Your task to perform on an android device: Search for vegetarian restaurants on Maps Image 0: 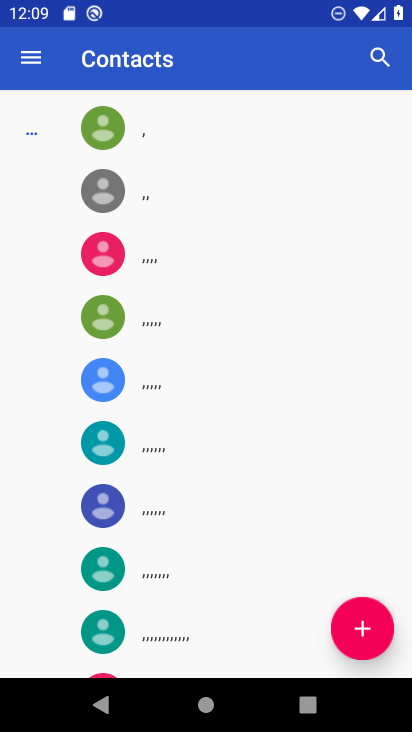
Step 0: press home button
Your task to perform on an android device: Search for vegetarian restaurants on Maps Image 1: 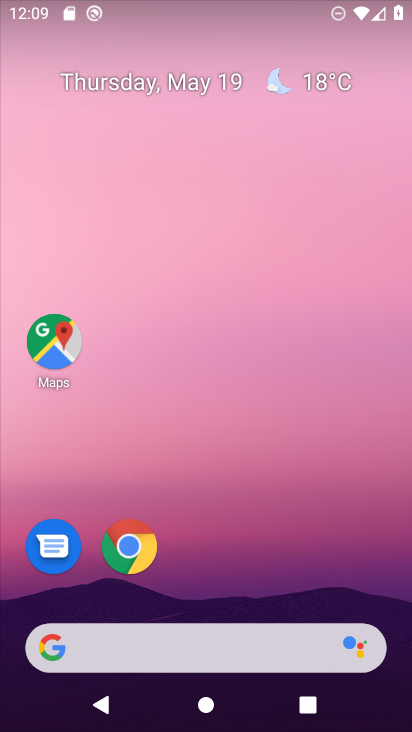
Step 1: drag from (243, 726) to (258, 156)
Your task to perform on an android device: Search for vegetarian restaurants on Maps Image 2: 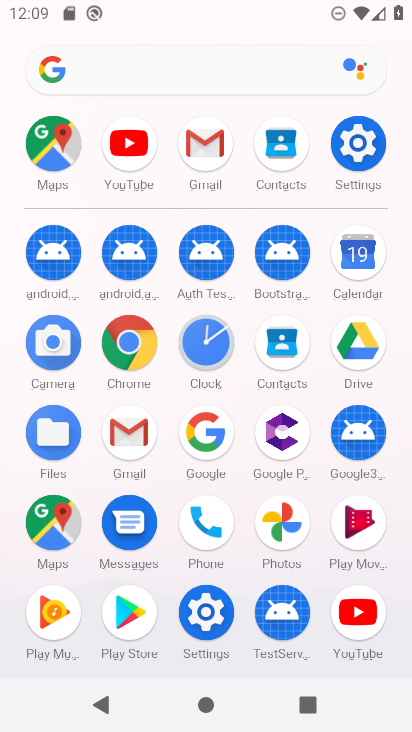
Step 2: click (50, 523)
Your task to perform on an android device: Search for vegetarian restaurants on Maps Image 3: 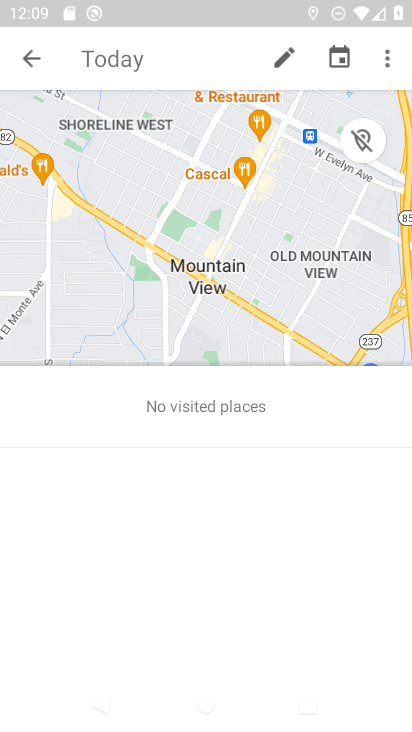
Step 3: click (29, 58)
Your task to perform on an android device: Search for vegetarian restaurants on Maps Image 4: 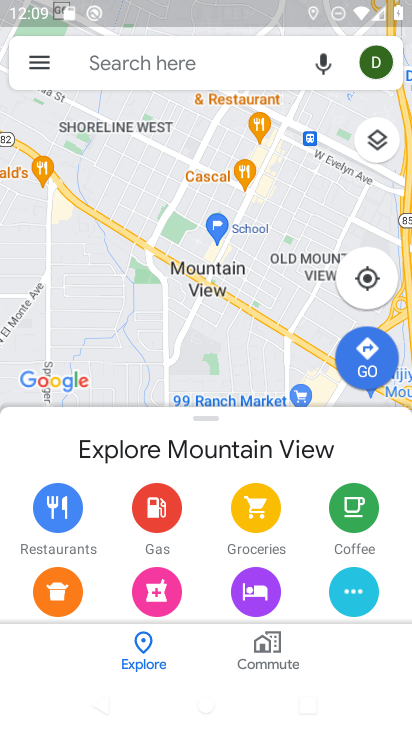
Step 4: click (173, 59)
Your task to perform on an android device: Search for vegetarian restaurants on Maps Image 5: 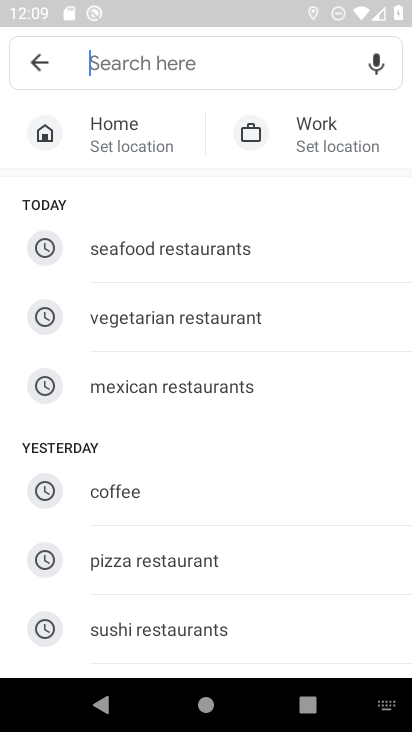
Step 5: type "vegetarian restaurants"
Your task to perform on an android device: Search for vegetarian restaurants on Maps Image 6: 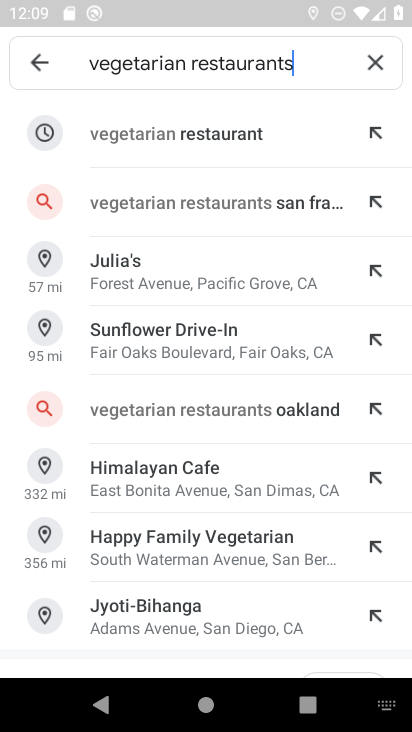
Step 6: click (114, 132)
Your task to perform on an android device: Search for vegetarian restaurants on Maps Image 7: 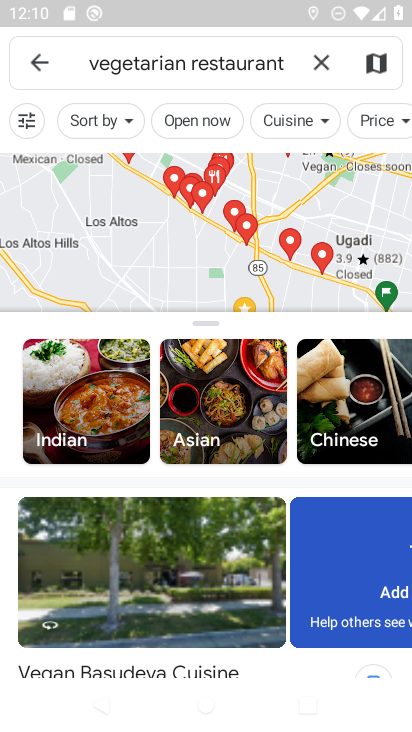
Step 7: task complete